Your task to perform on an android device: uninstall "Venmo" Image 0: 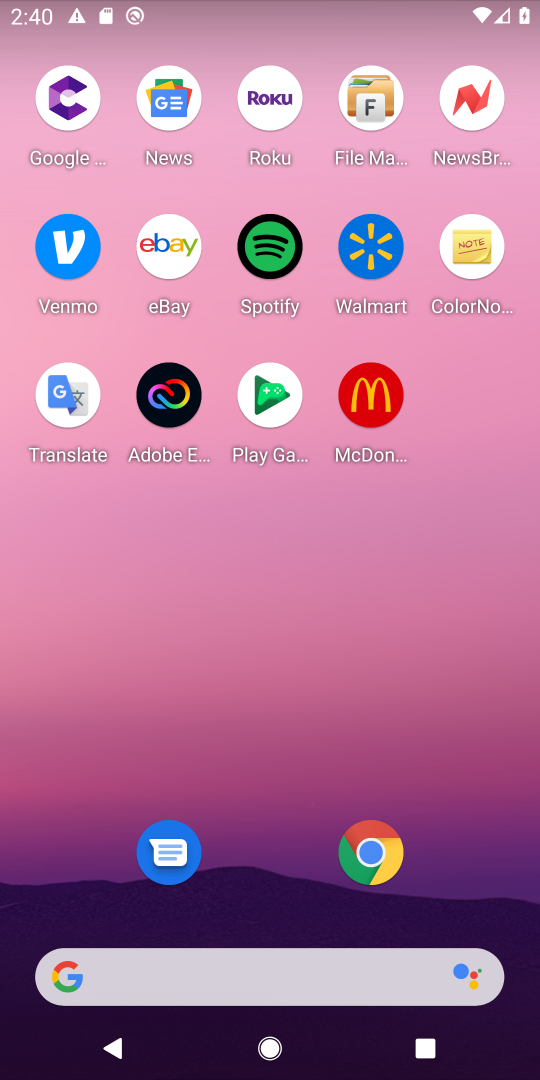
Step 0: drag from (282, 939) to (268, 280)
Your task to perform on an android device: uninstall "Venmo" Image 1: 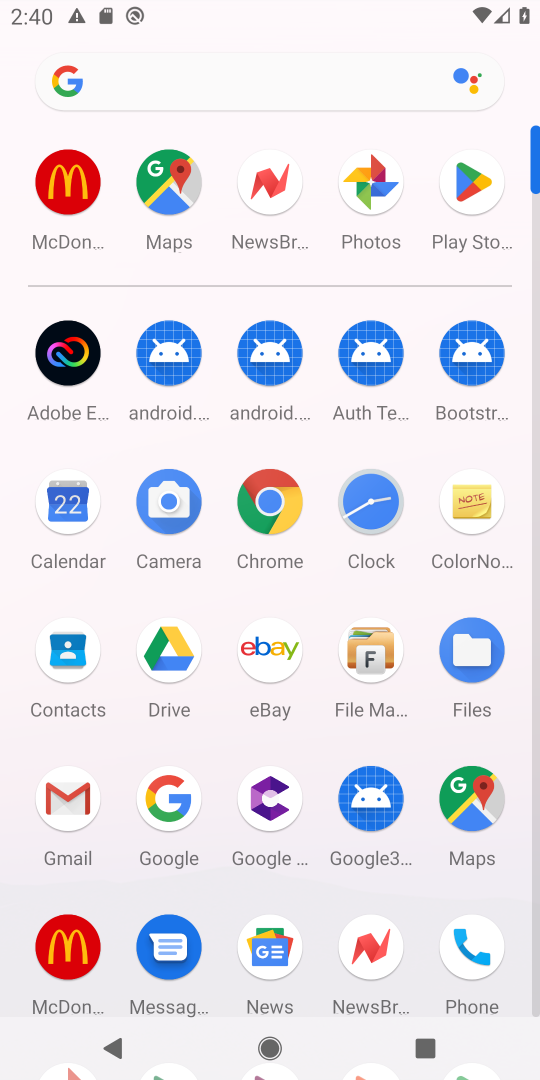
Step 1: click (469, 178)
Your task to perform on an android device: uninstall "Venmo" Image 2: 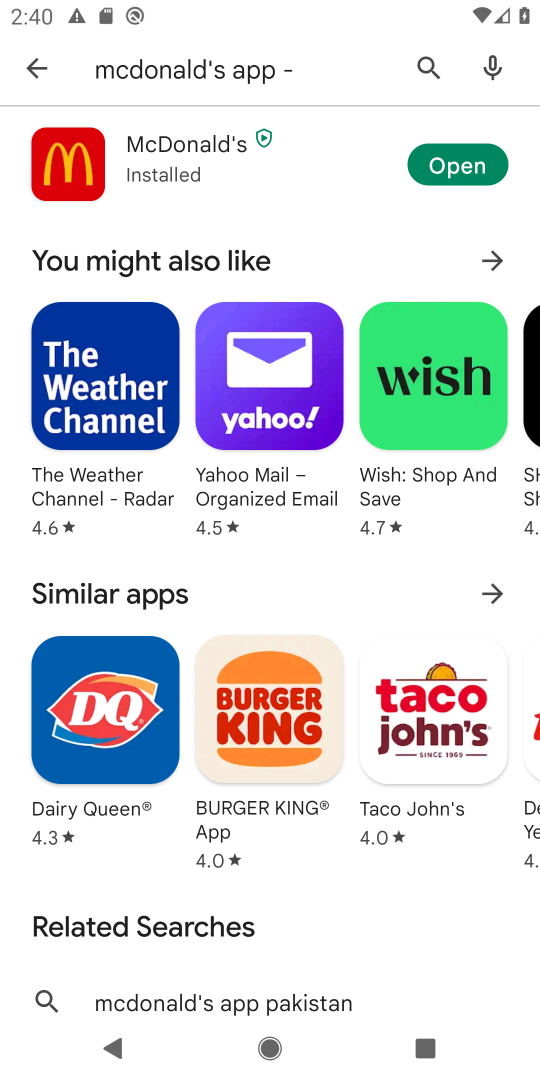
Step 2: click (421, 65)
Your task to perform on an android device: uninstall "Venmo" Image 3: 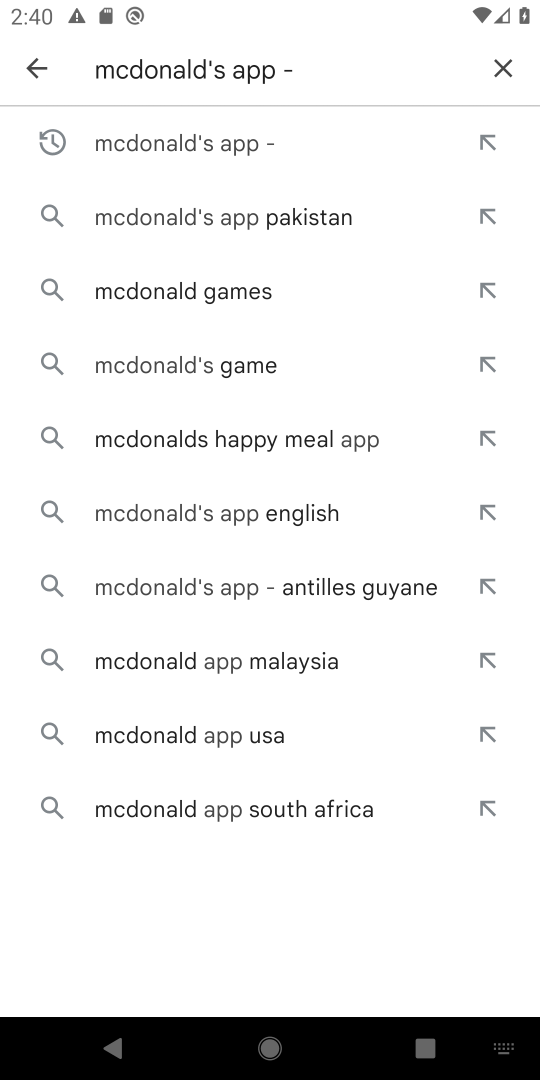
Step 3: click (500, 66)
Your task to perform on an android device: uninstall "Venmo" Image 4: 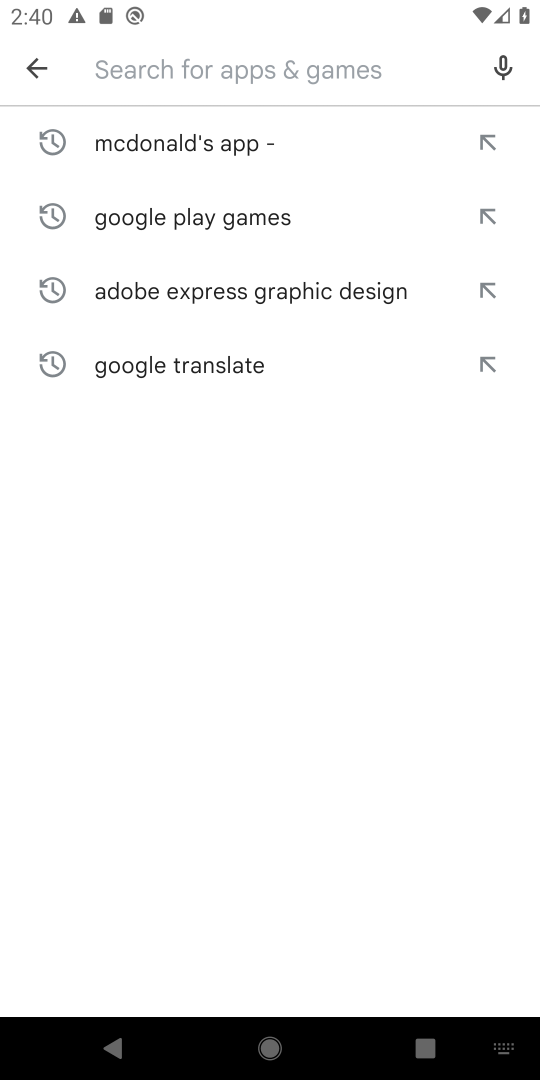
Step 4: type "Venmo"
Your task to perform on an android device: uninstall "Venmo" Image 5: 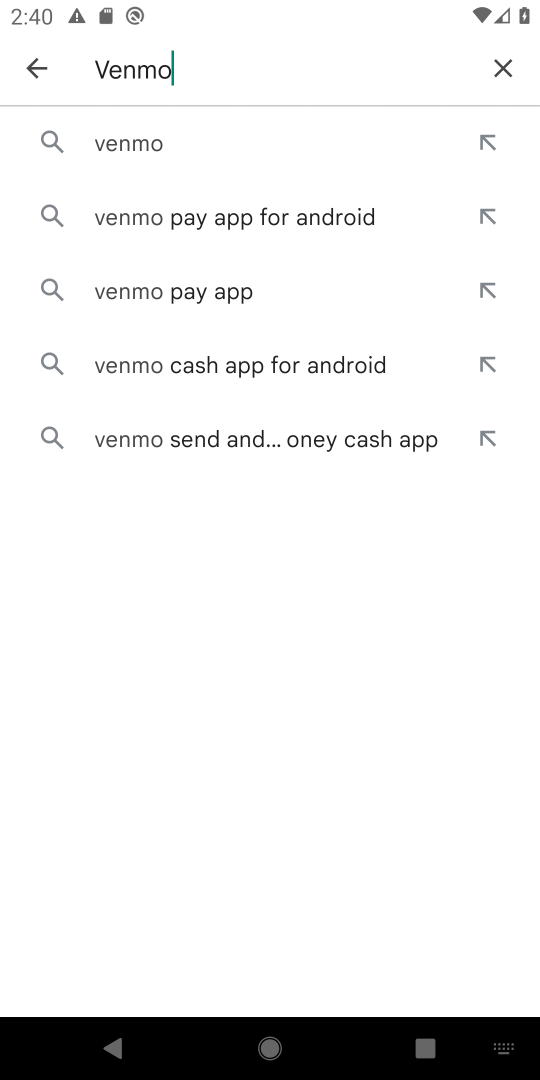
Step 5: click (139, 144)
Your task to perform on an android device: uninstall "Venmo" Image 6: 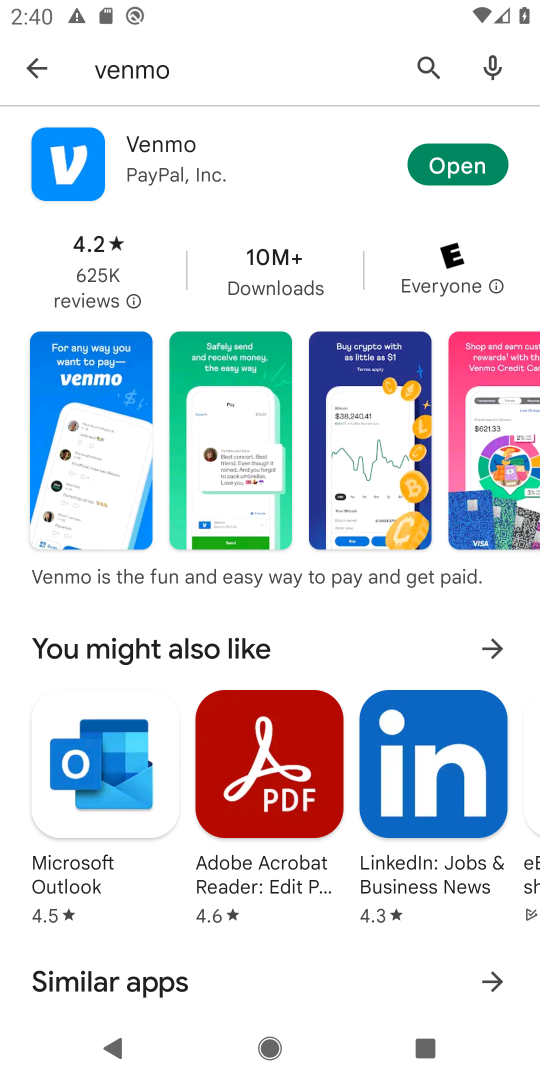
Step 6: click (155, 145)
Your task to perform on an android device: uninstall "Venmo" Image 7: 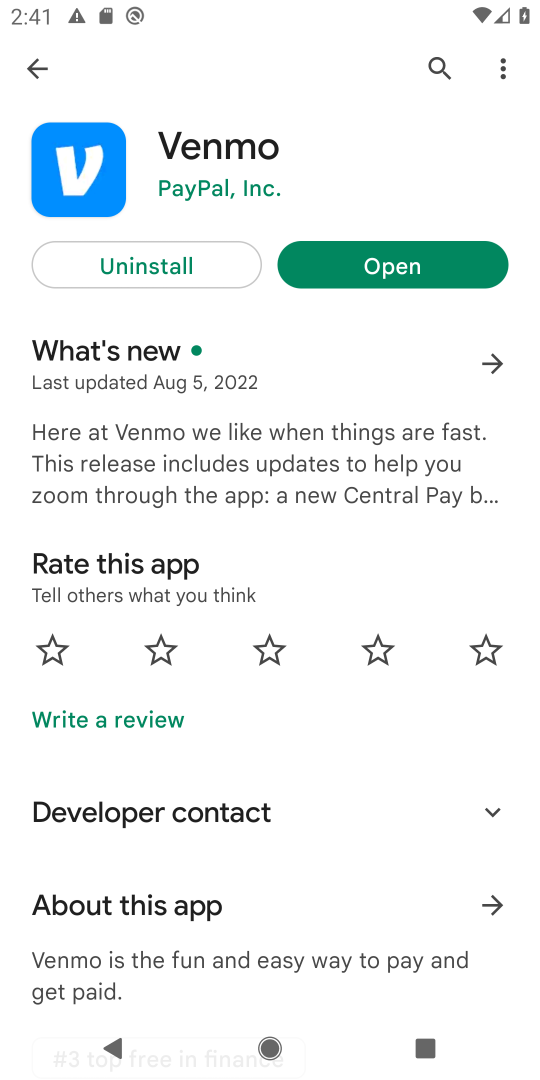
Step 7: click (164, 263)
Your task to perform on an android device: uninstall "Venmo" Image 8: 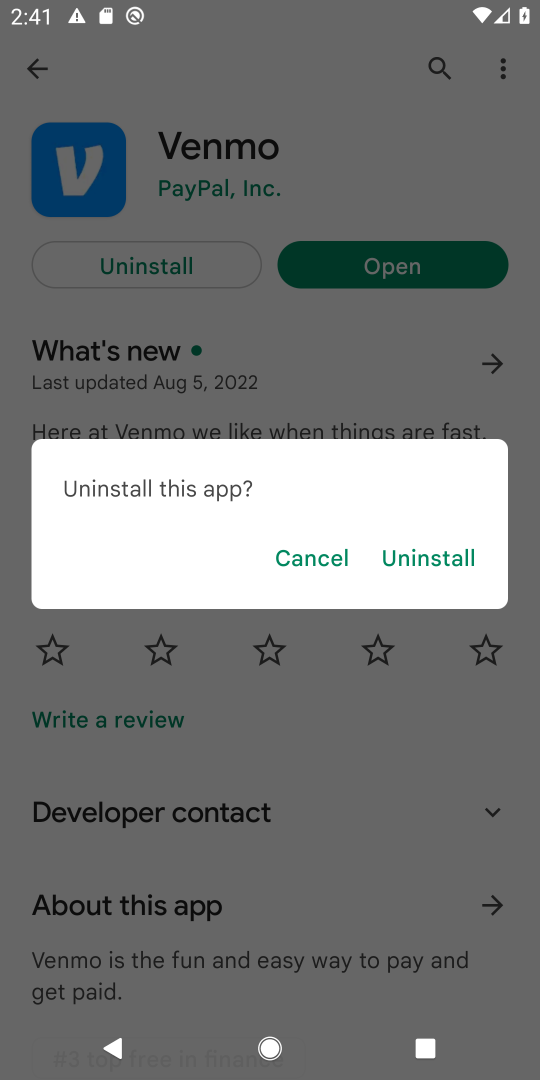
Step 8: click (418, 556)
Your task to perform on an android device: uninstall "Venmo" Image 9: 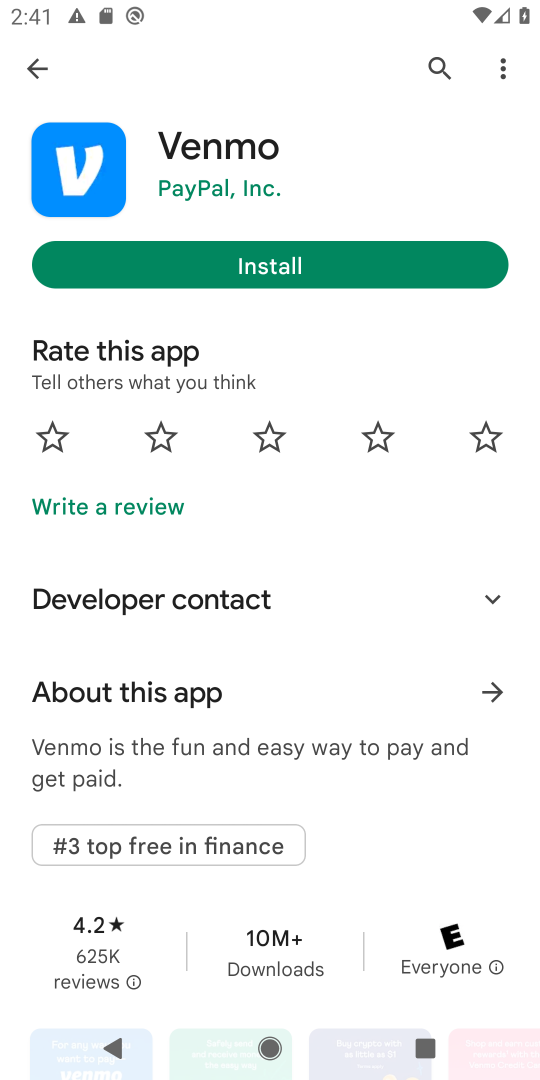
Step 9: task complete